Your task to perform on an android device: Is it going to rain this weekend? Image 0: 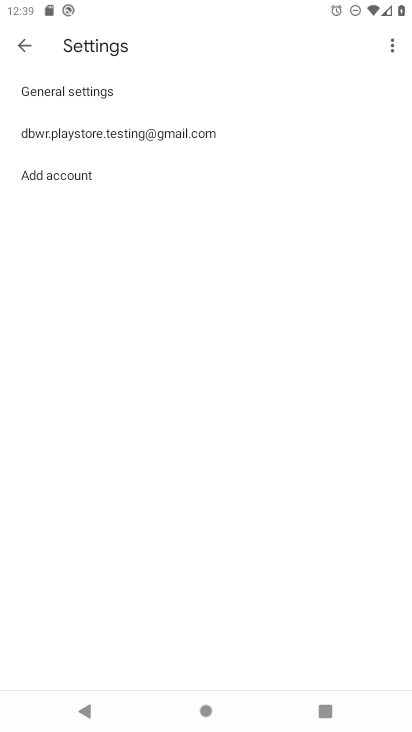
Step 0: press home button
Your task to perform on an android device: Is it going to rain this weekend? Image 1: 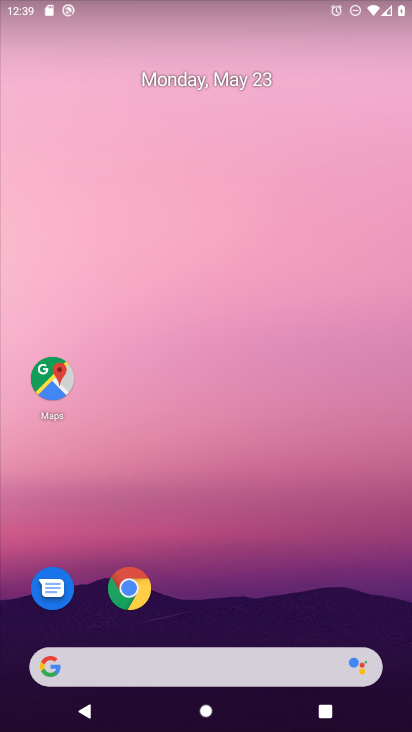
Step 1: drag from (253, 671) to (176, 237)
Your task to perform on an android device: Is it going to rain this weekend? Image 2: 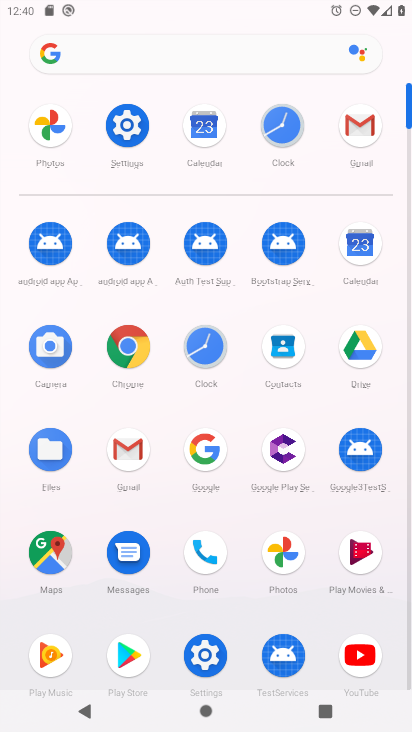
Step 2: click (148, 78)
Your task to perform on an android device: Is it going to rain this weekend? Image 3: 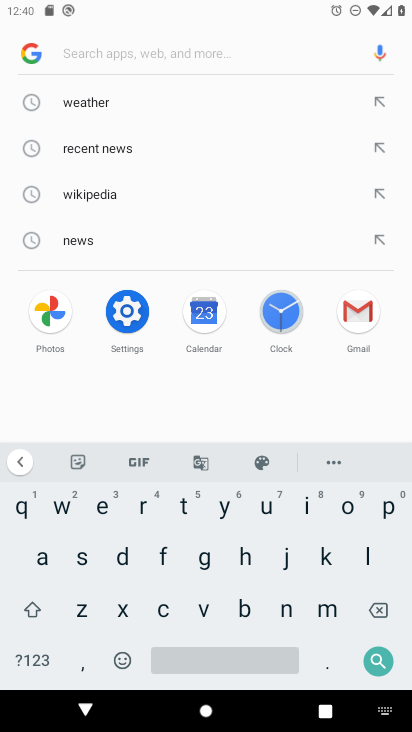
Step 3: click (121, 113)
Your task to perform on an android device: Is it going to rain this weekend? Image 4: 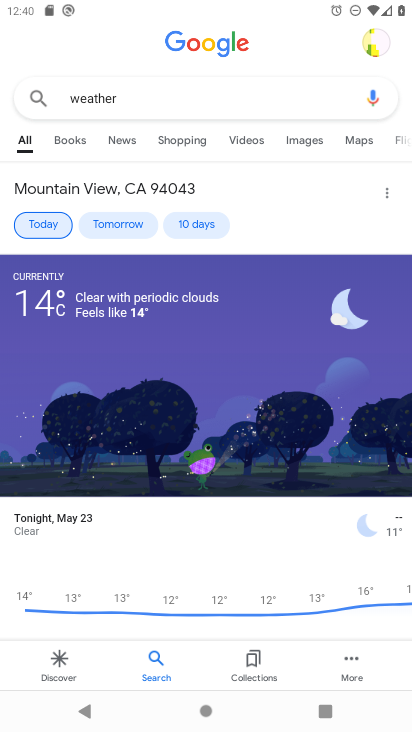
Step 4: click (185, 231)
Your task to perform on an android device: Is it going to rain this weekend? Image 5: 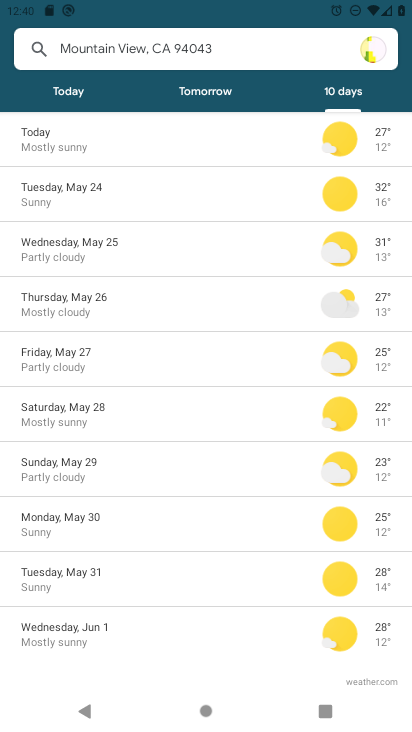
Step 5: task complete